Your task to perform on an android device: Open Chrome and go to settings Image 0: 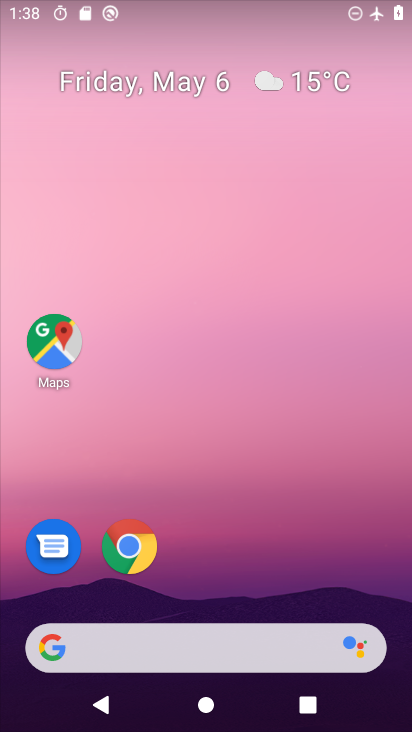
Step 0: click (132, 540)
Your task to perform on an android device: Open Chrome and go to settings Image 1: 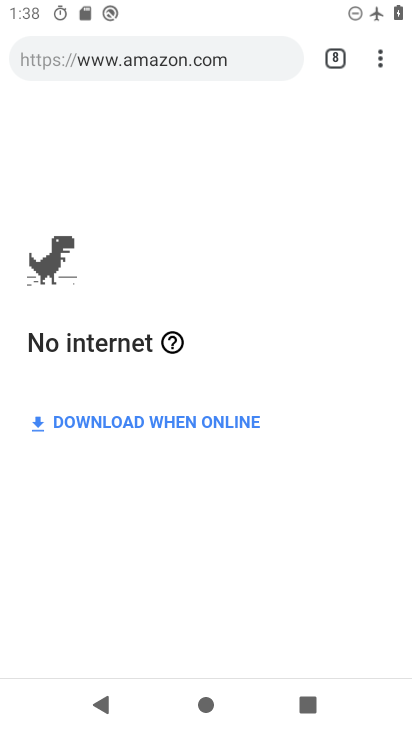
Step 1: click (386, 54)
Your task to perform on an android device: Open Chrome and go to settings Image 2: 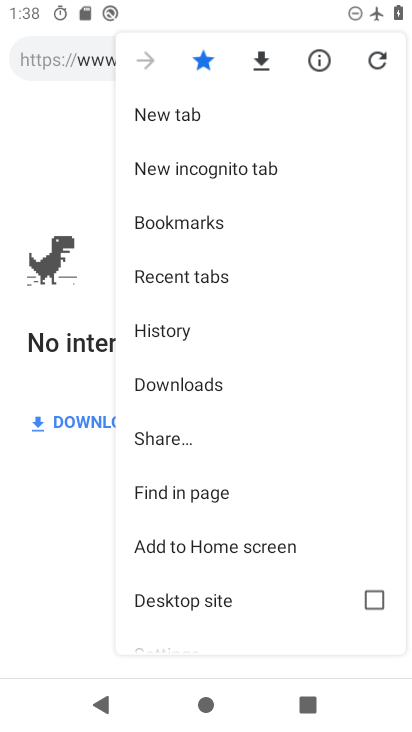
Step 2: drag from (224, 568) to (272, 298)
Your task to perform on an android device: Open Chrome and go to settings Image 3: 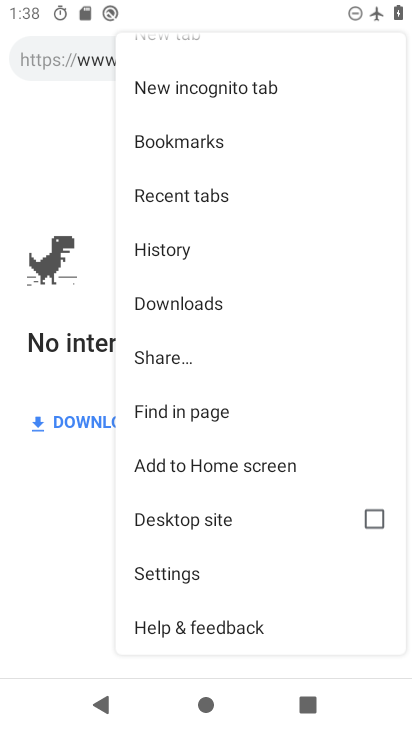
Step 3: click (205, 575)
Your task to perform on an android device: Open Chrome and go to settings Image 4: 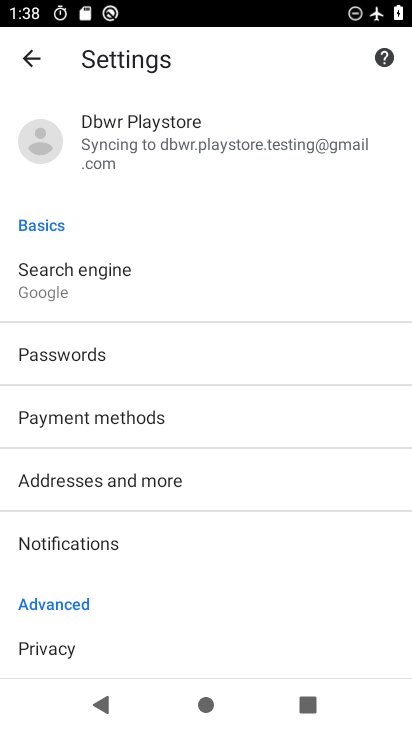
Step 4: task complete